Your task to perform on an android device: Set the phone to "Do not disturb". Image 0: 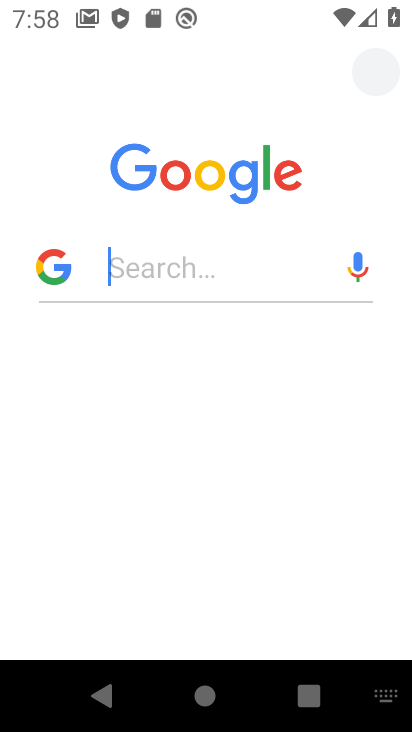
Step 0: drag from (231, 575) to (124, 568)
Your task to perform on an android device: Set the phone to "Do not disturb". Image 1: 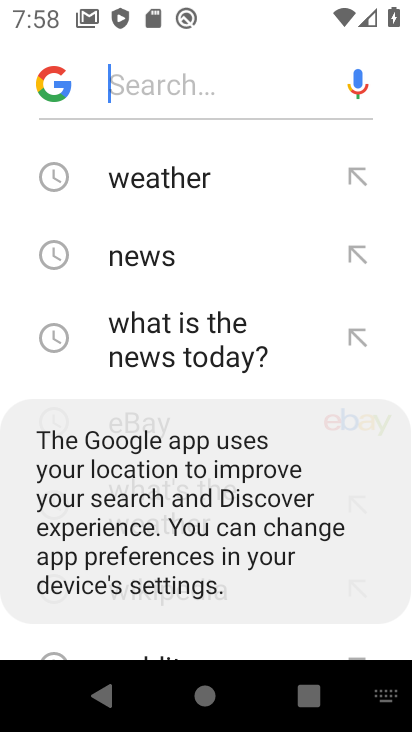
Step 1: press home button
Your task to perform on an android device: Set the phone to "Do not disturb". Image 2: 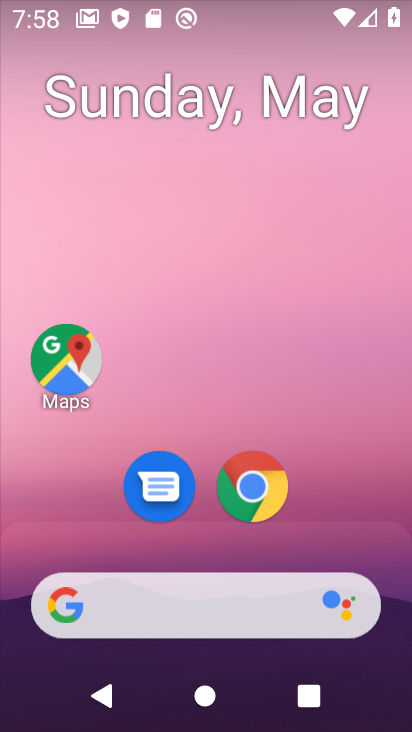
Step 2: drag from (301, 0) to (298, 406)
Your task to perform on an android device: Set the phone to "Do not disturb". Image 3: 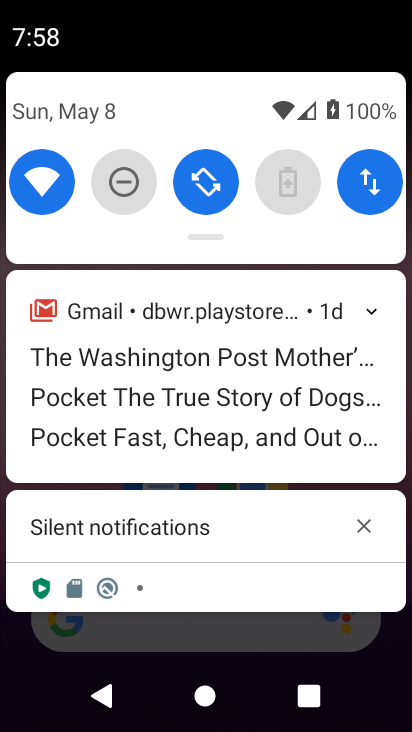
Step 3: click (130, 178)
Your task to perform on an android device: Set the phone to "Do not disturb". Image 4: 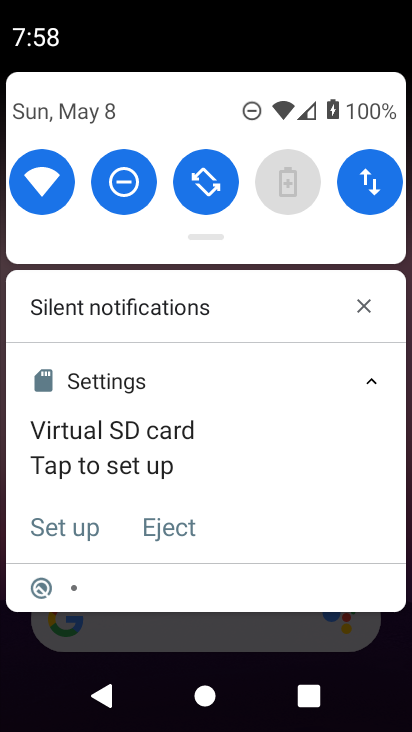
Step 4: task complete